Your task to perform on an android device: Search for asus rog on target, select the first entry, add it to the cart, then select checkout. Image 0: 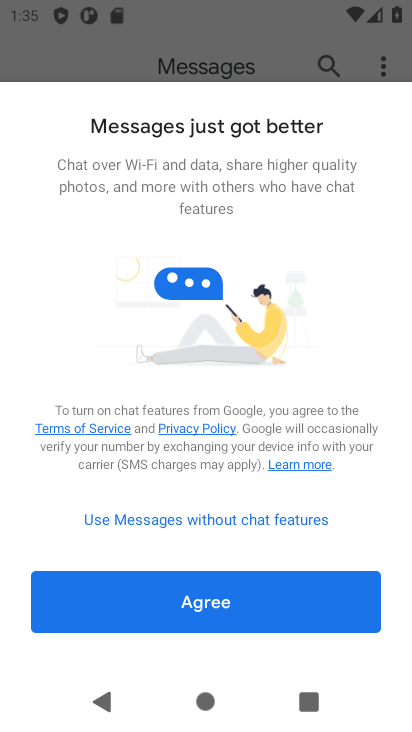
Step 0: press home button
Your task to perform on an android device: Search for asus rog on target, select the first entry, add it to the cart, then select checkout. Image 1: 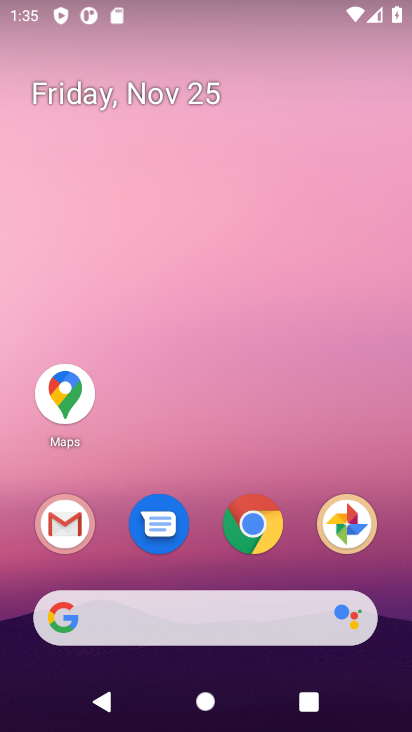
Step 1: click (255, 531)
Your task to perform on an android device: Search for asus rog on target, select the first entry, add it to the cart, then select checkout. Image 2: 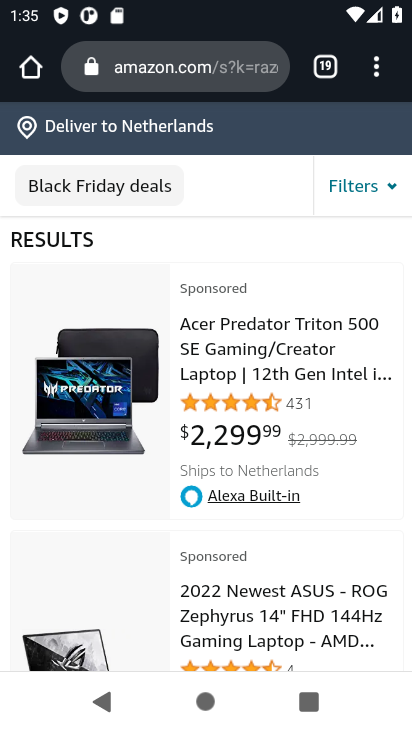
Step 2: click (136, 75)
Your task to perform on an android device: Search for asus rog on target, select the first entry, add it to the cart, then select checkout. Image 3: 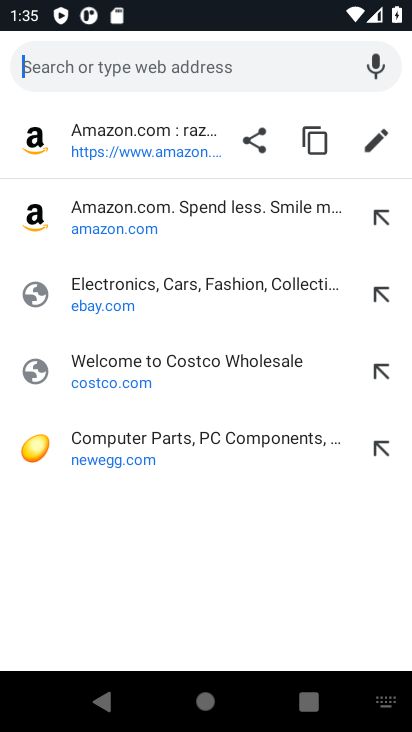
Step 3: type "target.com"
Your task to perform on an android device: Search for asus rog on target, select the first entry, add it to the cart, then select checkout. Image 4: 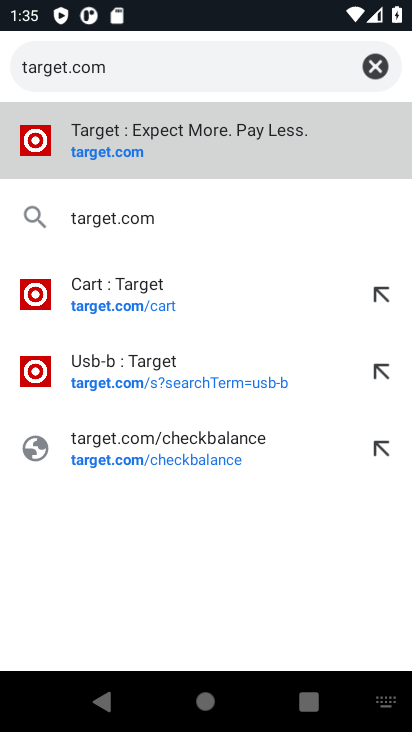
Step 4: click (119, 157)
Your task to perform on an android device: Search for asus rog on target, select the first entry, add it to the cart, then select checkout. Image 5: 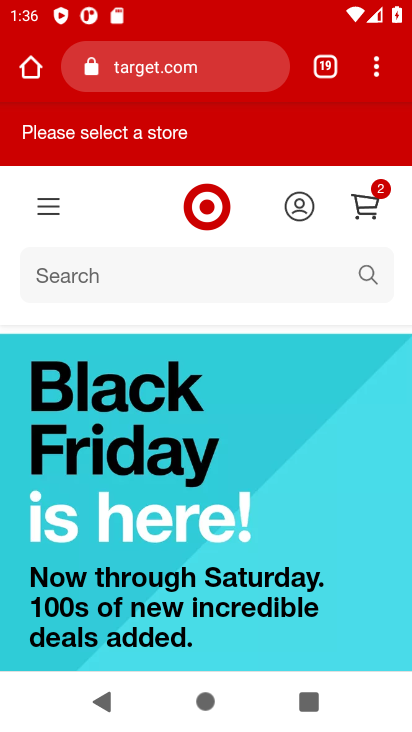
Step 5: click (363, 273)
Your task to perform on an android device: Search for asus rog on target, select the first entry, add it to the cart, then select checkout. Image 6: 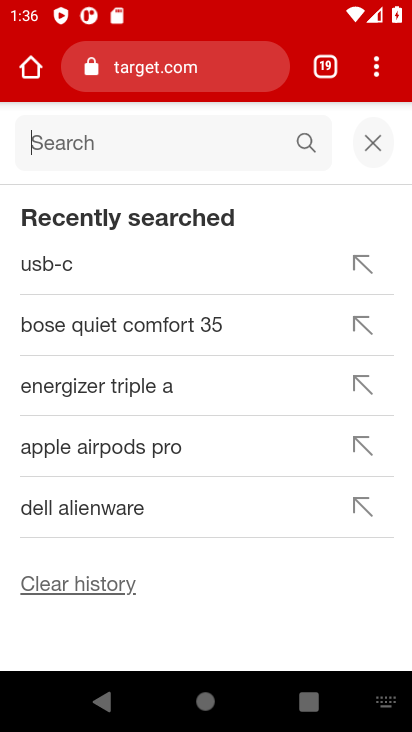
Step 6: type "asus rog "
Your task to perform on an android device: Search for asus rog on target, select the first entry, add it to the cart, then select checkout. Image 7: 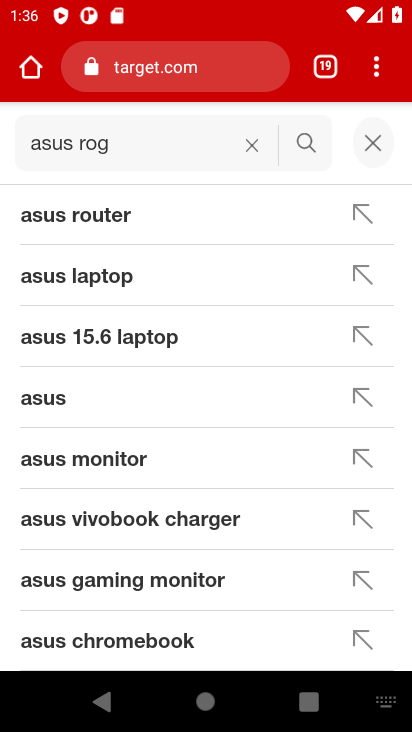
Step 7: click (308, 146)
Your task to perform on an android device: Search for asus rog on target, select the first entry, add it to the cart, then select checkout. Image 8: 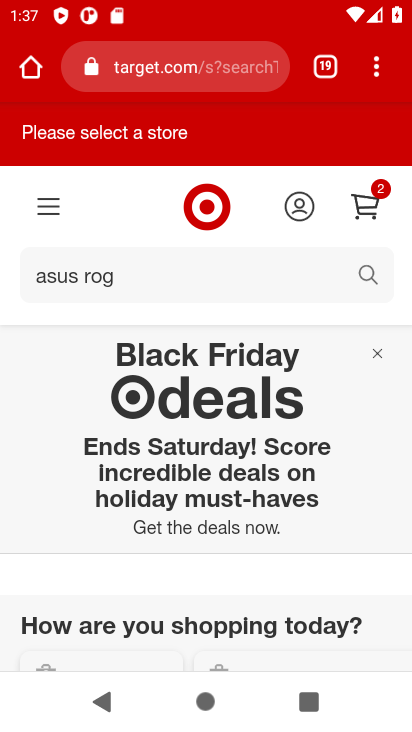
Step 8: drag from (211, 517) to (236, 301)
Your task to perform on an android device: Search for asus rog on target, select the first entry, add it to the cart, then select checkout. Image 9: 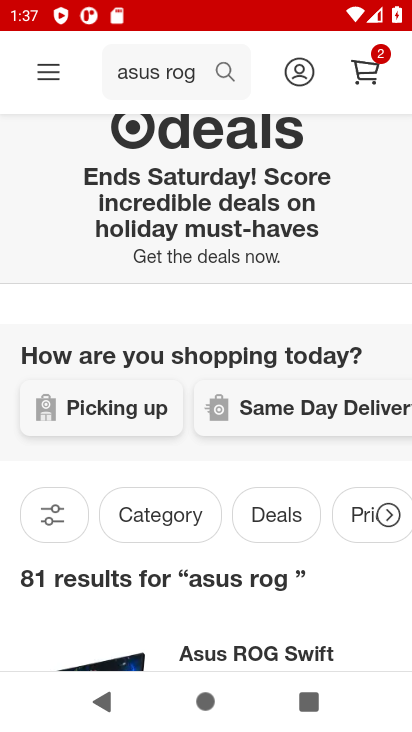
Step 9: drag from (207, 450) to (209, 223)
Your task to perform on an android device: Search for asus rog on target, select the first entry, add it to the cart, then select checkout. Image 10: 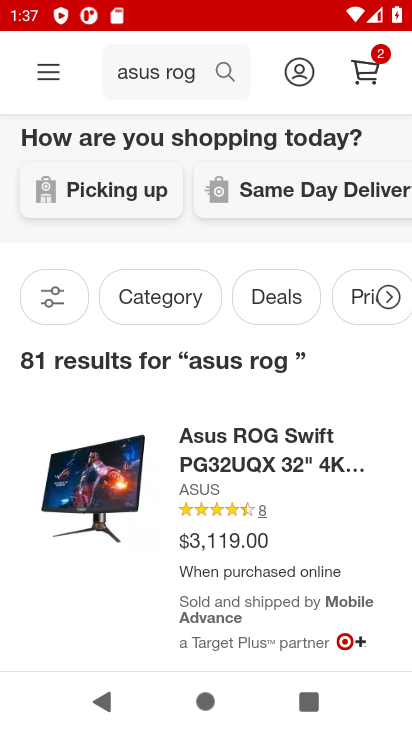
Step 10: drag from (168, 389) to (175, 252)
Your task to perform on an android device: Search for asus rog on target, select the first entry, add it to the cart, then select checkout. Image 11: 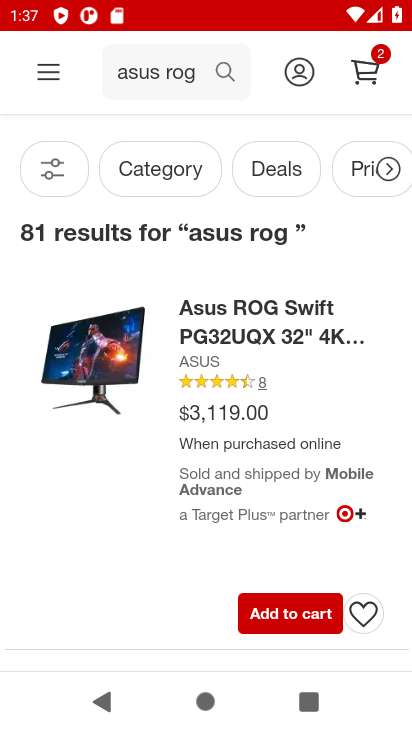
Step 11: click (280, 611)
Your task to perform on an android device: Search for asus rog on target, select the first entry, add it to the cart, then select checkout. Image 12: 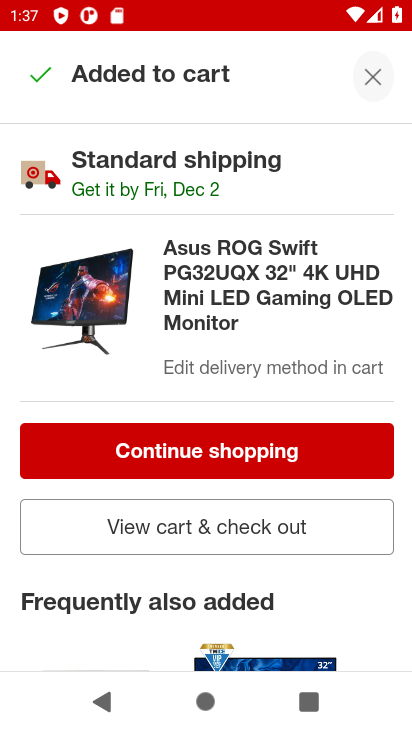
Step 12: click (203, 525)
Your task to perform on an android device: Search for asus rog on target, select the first entry, add it to the cart, then select checkout. Image 13: 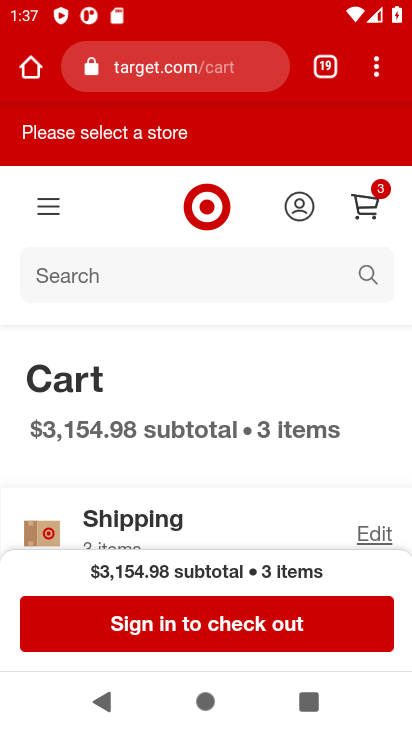
Step 13: click (236, 618)
Your task to perform on an android device: Search for asus rog on target, select the first entry, add it to the cart, then select checkout. Image 14: 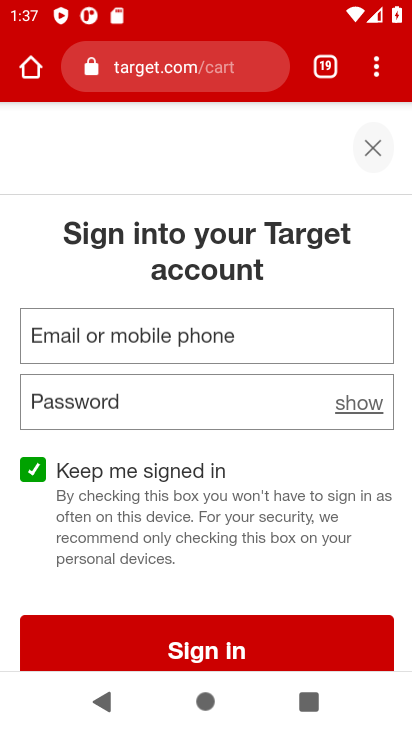
Step 14: task complete